Your task to perform on an android device: Open ESPN.com Image 0: 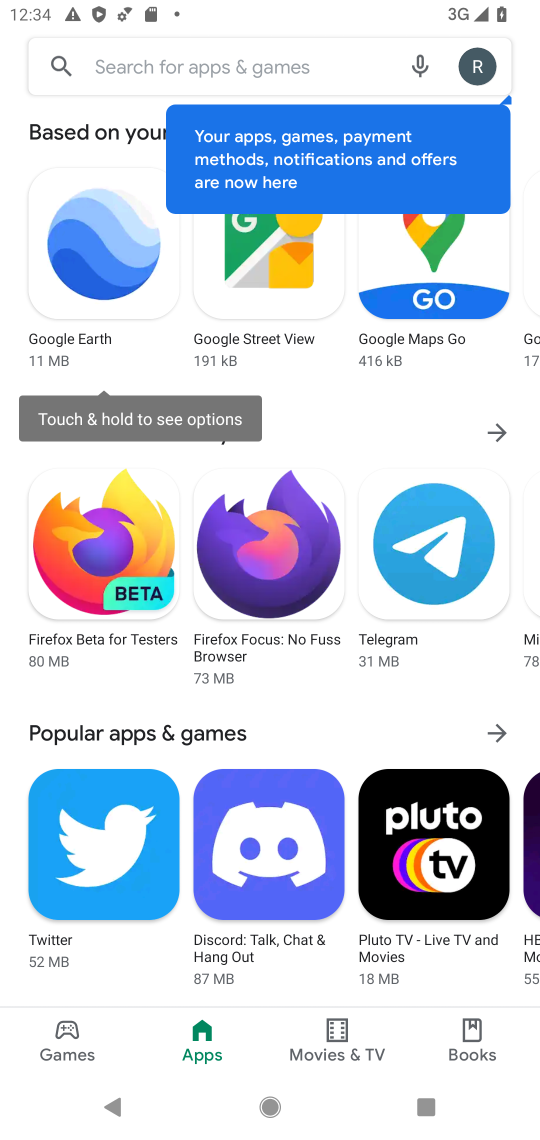
Step 0: press home button
Your task to perform on an android device: Open ESPN.com Image 1: 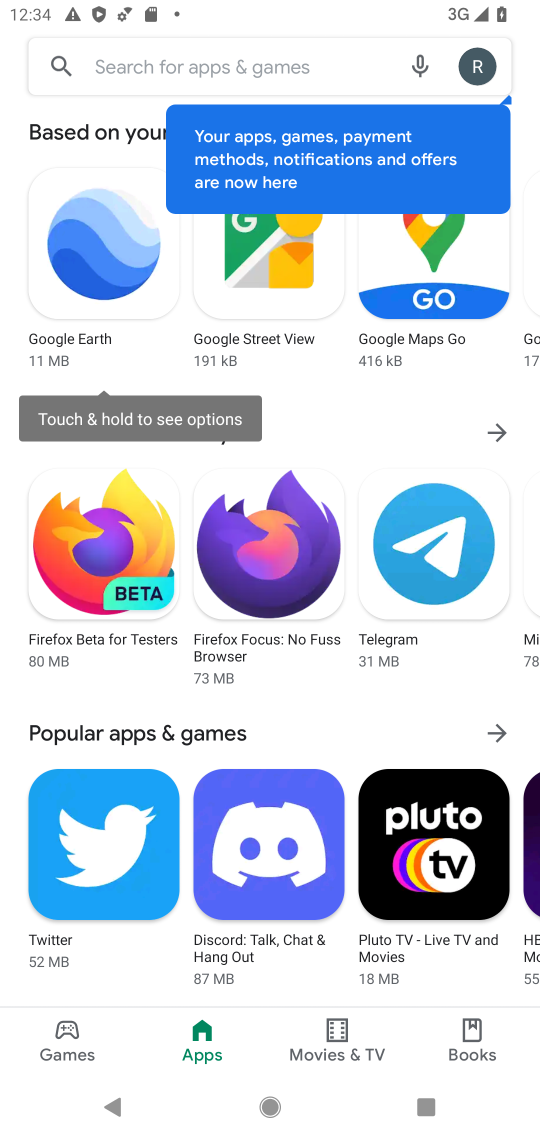
Step 1: press home button
Your task to perform on an android device: Open ESPN.com Image 2: 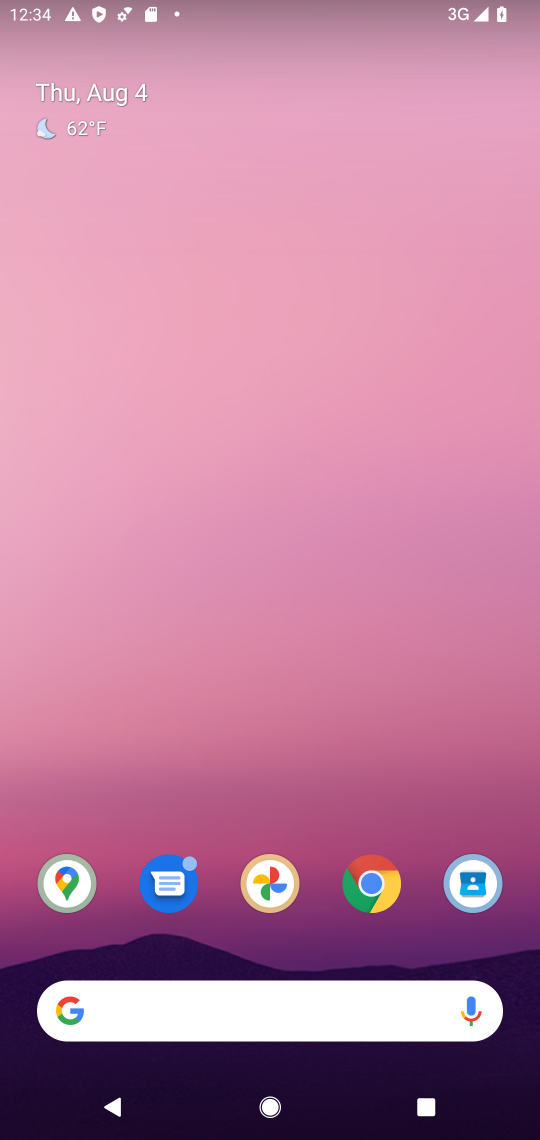
Step 2: drag from (240, 918) to (290, 324)
Your task to perform on an android device: Open ESPN.com Image 3: 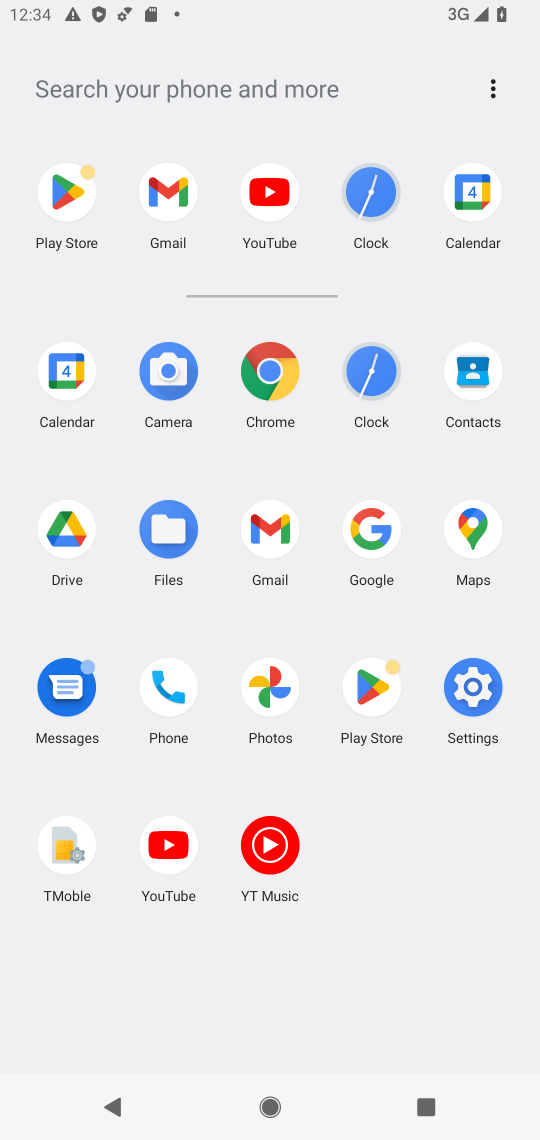
Step 3: click (251, 106)
Your task to perform on an android device: Open ESPN.com Image 4: 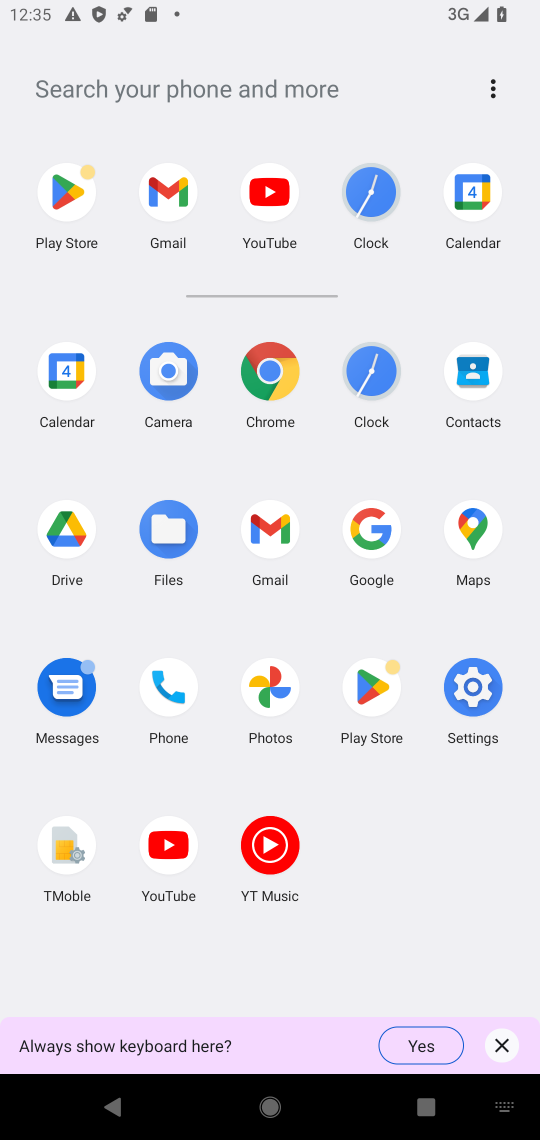
Step 4: type "espn.com"
Your task to perform on an android device: Open ESPN.com Image 5: 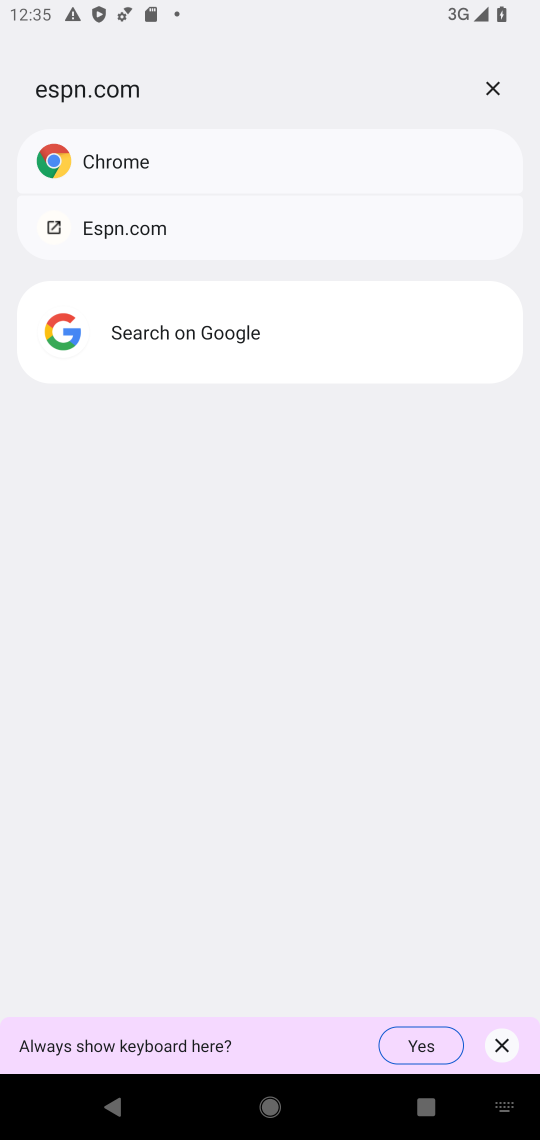
Step 5: click (89, 237)
Your task to perform on an android device: Open ESPN.com Image 6: 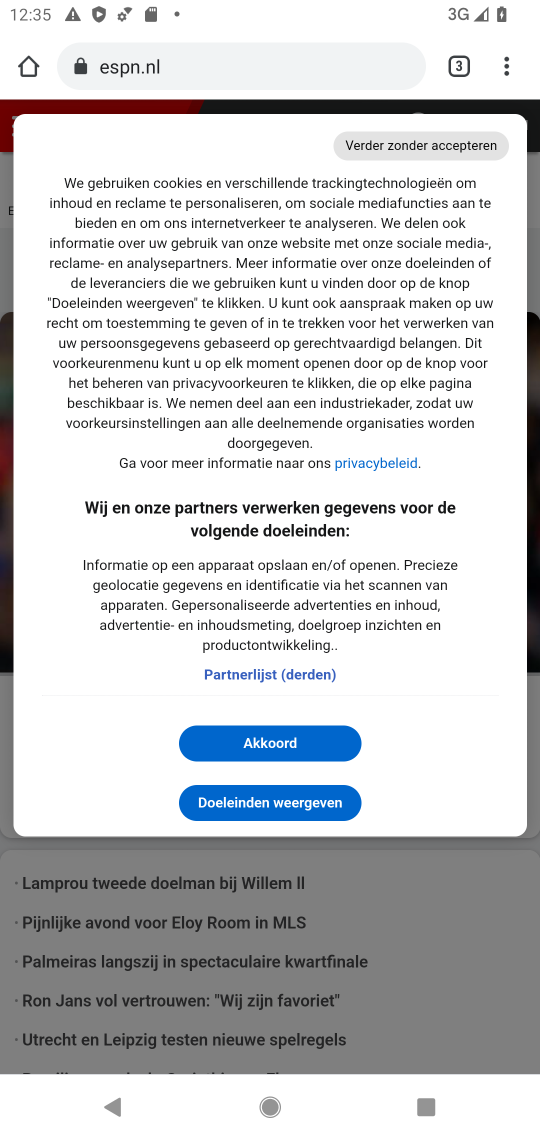
Step 6: task complete